Your task to perform on an android device: turn off data saver in the chrome app Image 0: 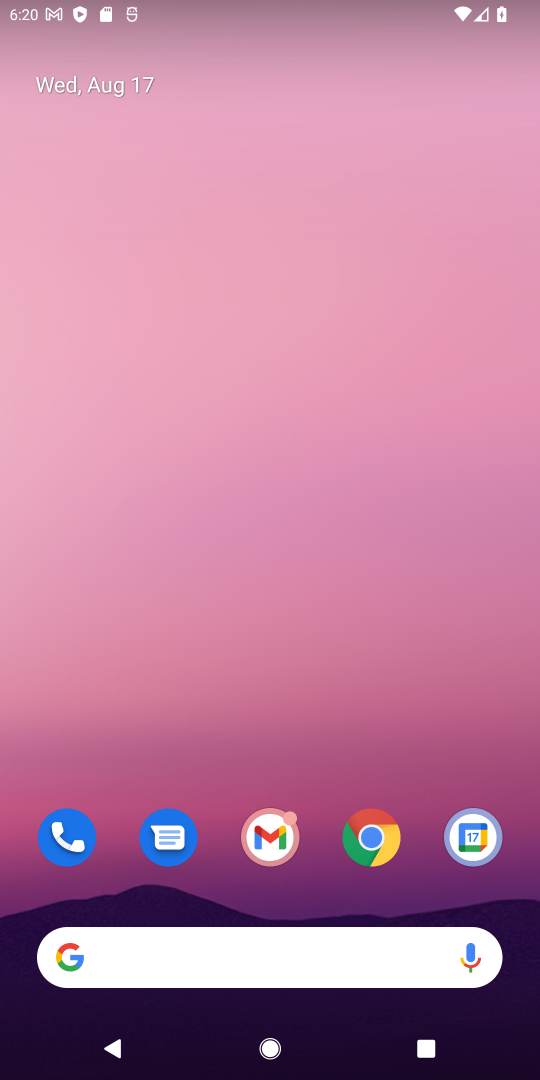
Step 0: click (366, 843)
Your task to perform on an android device: turn off data saver in the chrome app Image 1: 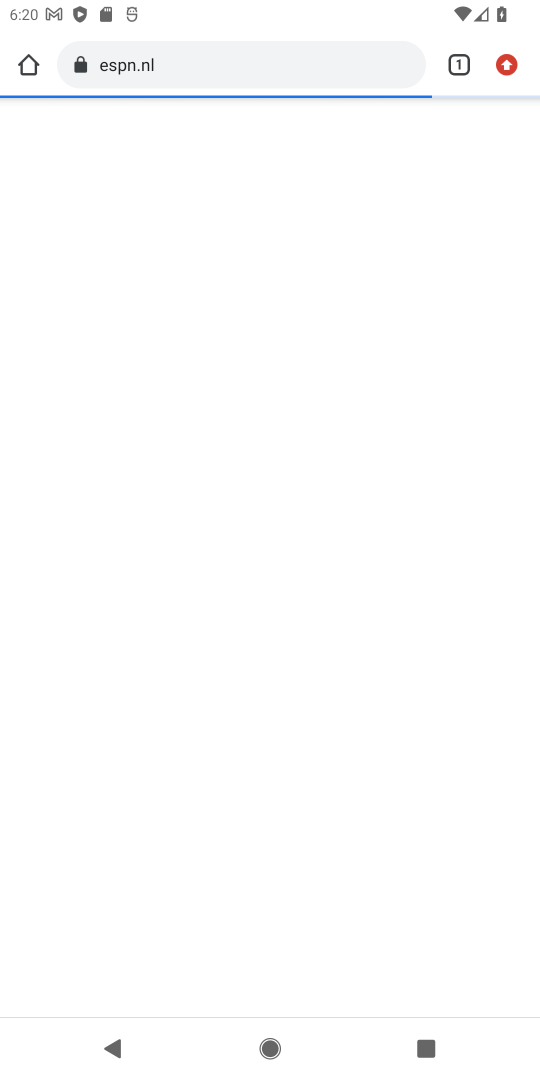
Step 1: drag from (512, 66) to (289, 798)
Your task to perform on an android device: turn off data saver in the chrome app Image 2: 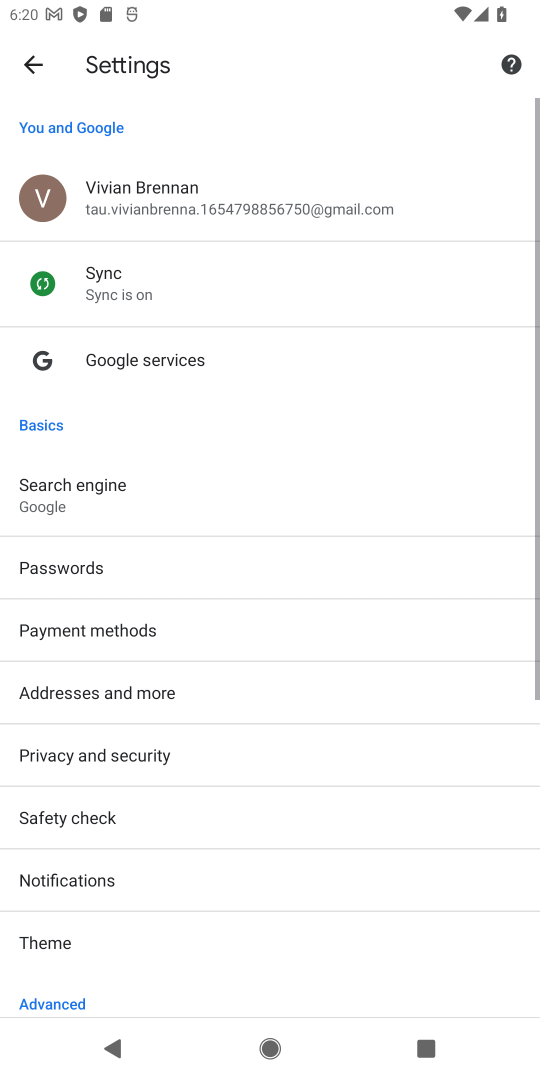
Step 2: drag from (280, 878) to (457, 6)
Your task to perform on an android device: turn off data saver in the chrome app Image 3: 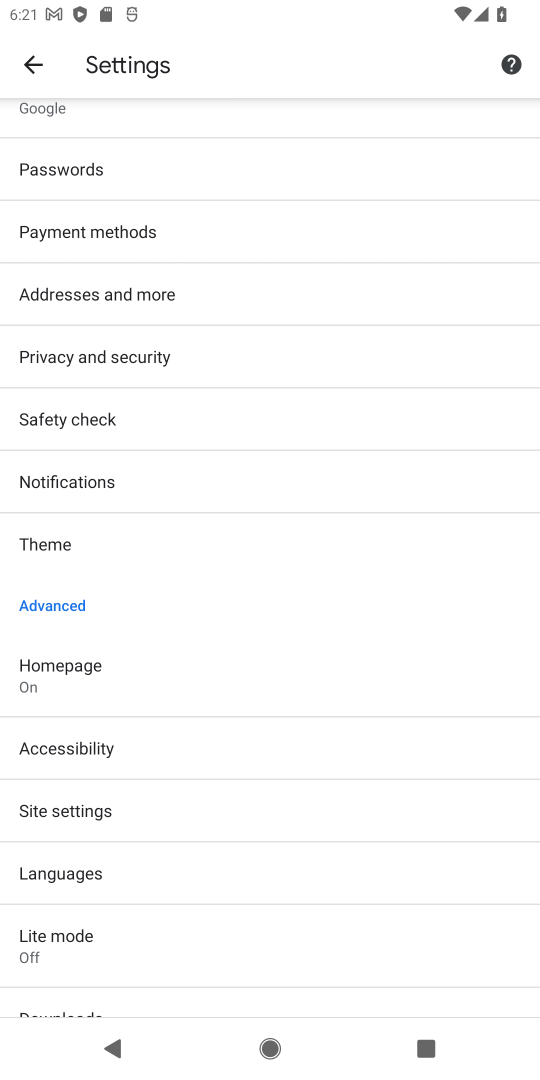
Step 3: drag from (227, 935) to (418, 221)
Your task to perform on an android device: turn off data saver in the chrome app Image 4: 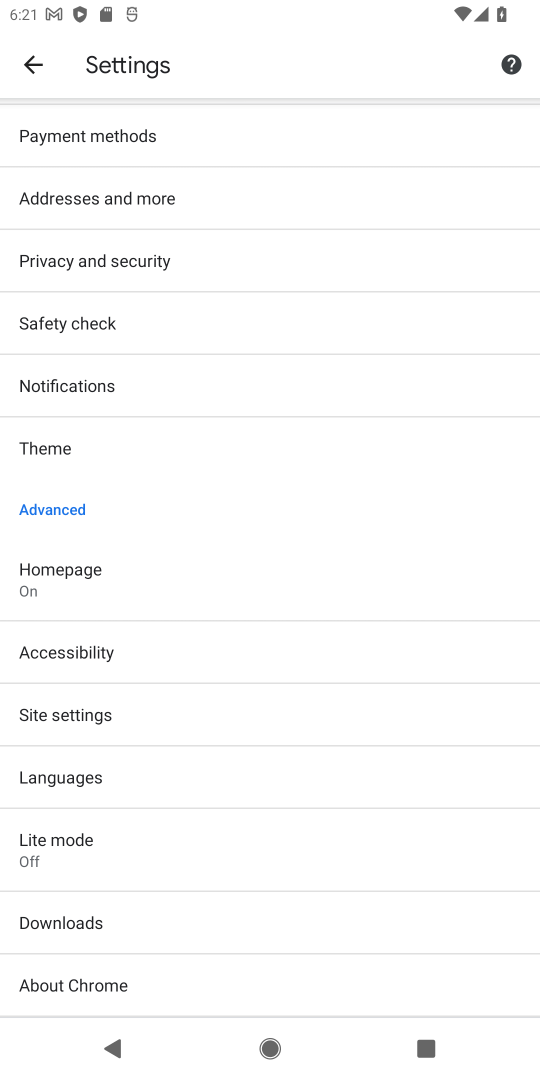
Step 4: click (79, 845)
Your task to perform on an android device: turn off data saver in the chrome app Image 5: 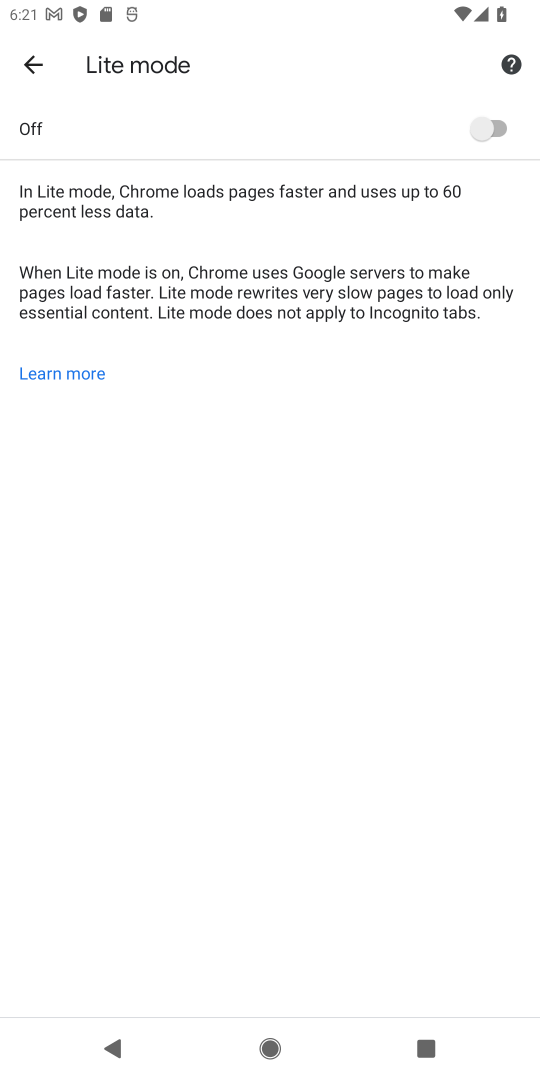
Step 5: task complete